Your task to perform on an android device: turn on the 12-hour format for clock Image 0: 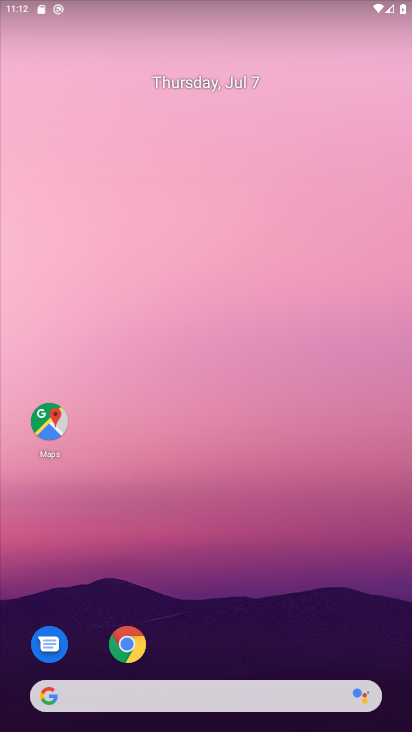
Step 0: drag from (229, 705) to (198, 140)
Your task to perform on an android device: turn on the 12-hour format for clock Image 1: 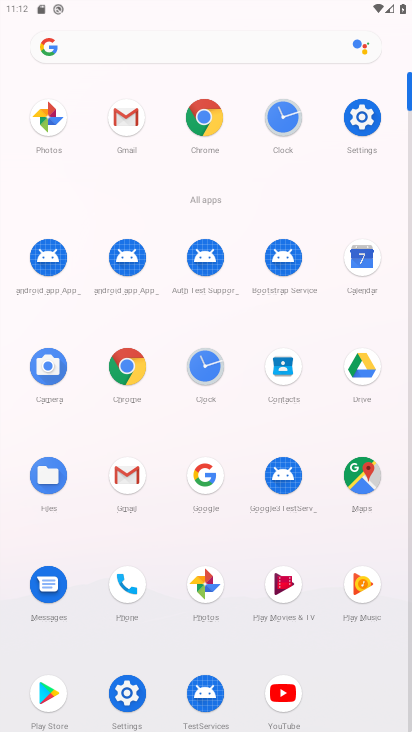
Step 1: click (284, 121)
Your task to perform on an android device: turn on the 12-hour format for clock Image 2: 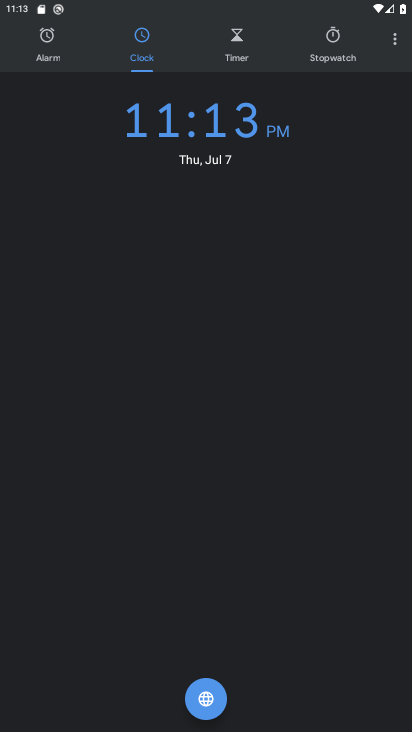
Step 2: click (396, 38)
Your task to perform on an android device: turn on the 12-hour format for clock Image 3: 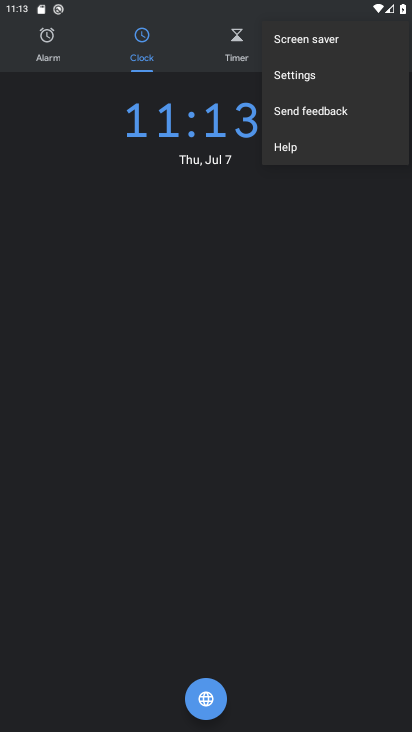
Step 3: click (294, 74)
Your task to perform on an android device: turn on the 12-hour format for clock Image 4: 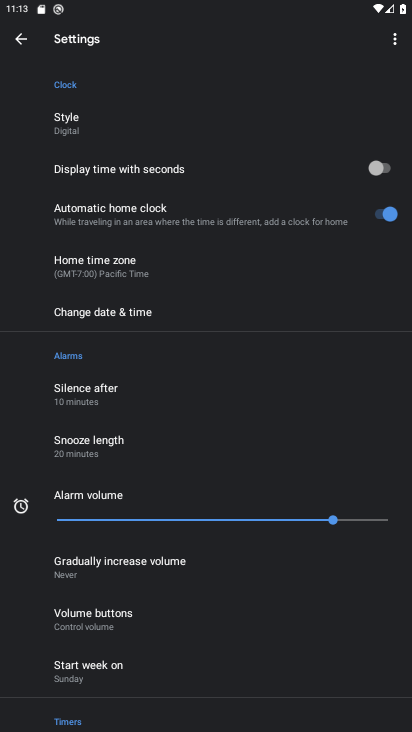
Step 4: drag from (222, 687) to (208, 358)
Your task to perform on an android device: turn on the 12-hour format for clock Image 5: 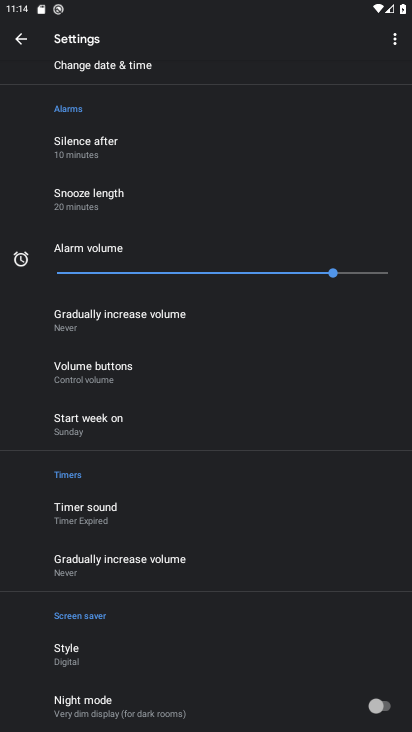
Step 5: click (109, 64)
Your task to perform on an android device: turn on the 12-hour format for clock Image 6: 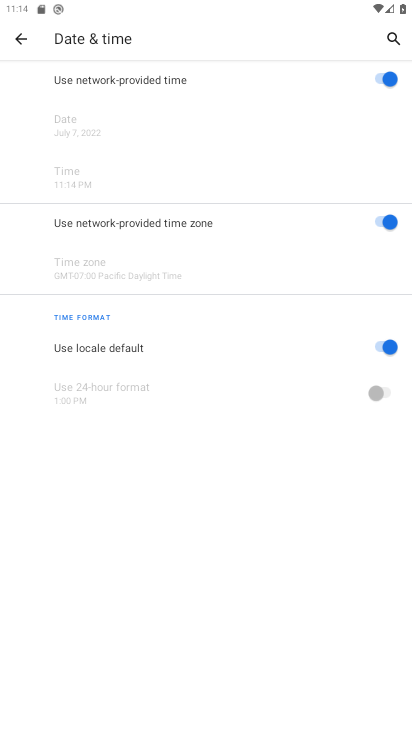
Step 6: click (380, 339)
Your task to perform on an android device: turn on the 12-hour format for clock Image 7: 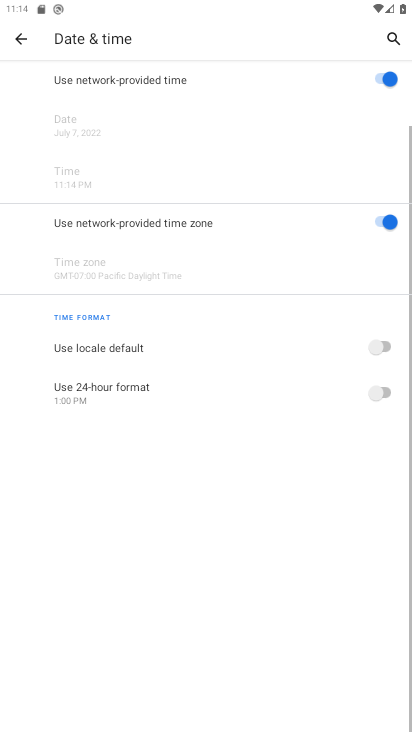
Step 7: click (383, 392)
Your task to perform on an android device: turn on the 12-hour format for clock Image 8: 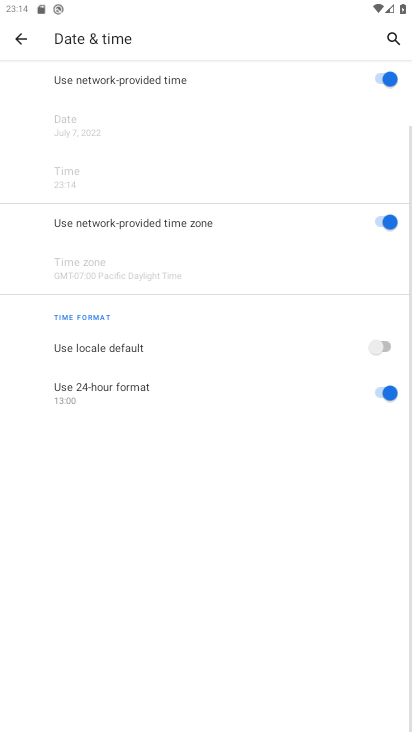
Step 8: task complete